Your task to perform on an android device: delete location history Image 0: 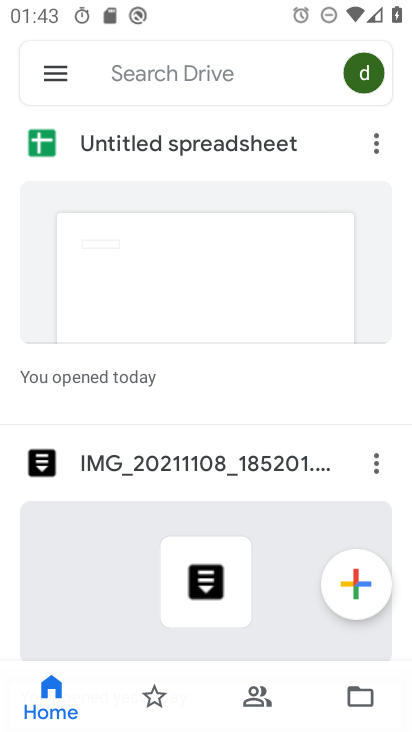
Step 0: press home button
Your task to perform on an android device: delete location history Image 1: 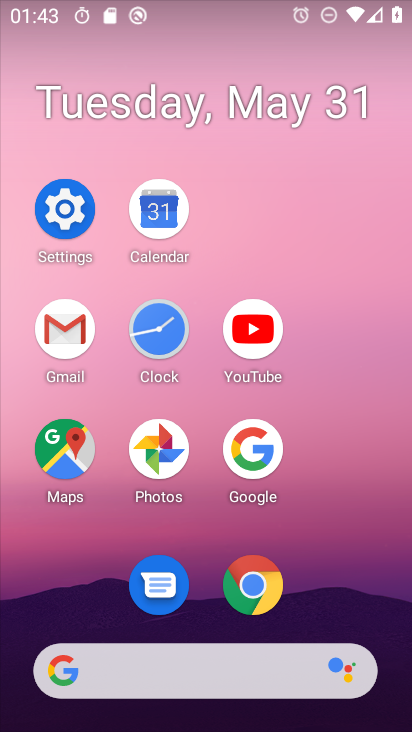
Step 1: click (90, 207)
Your task to perform on an android device: delete location history Image 2: 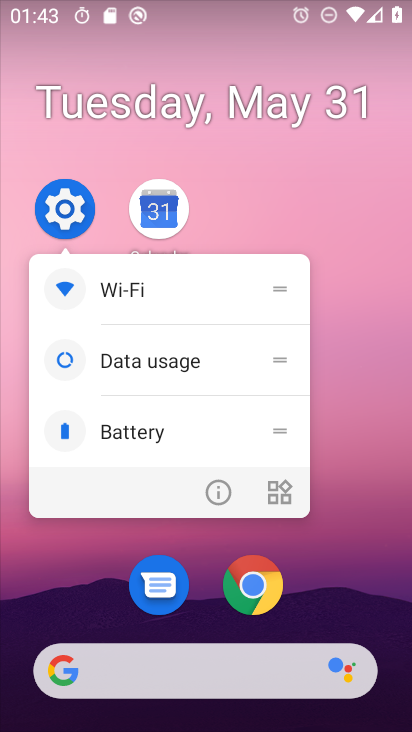
Step 2: click (70, 211)
Your task to perform on an android device: delete location history Image 3: 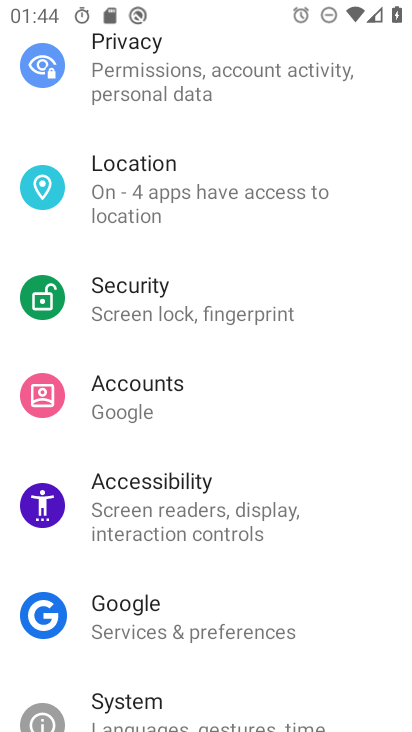
Step 3: click (256, 213)
Your task to perform on an android device: delete location history Image 4: 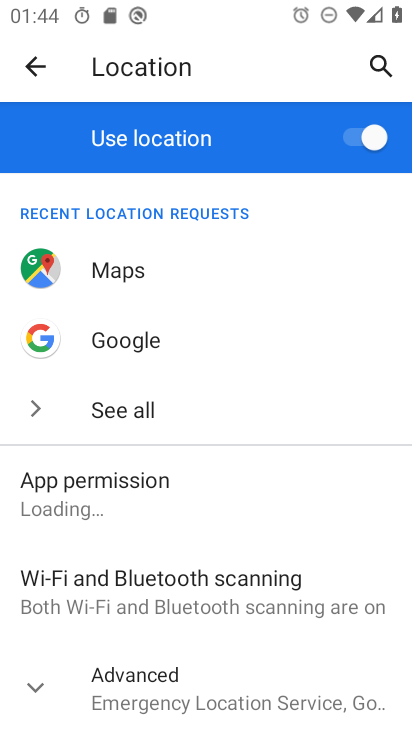
Step 4: click (235, 606)
Your task to perform on an android device: delete location history Image 5: 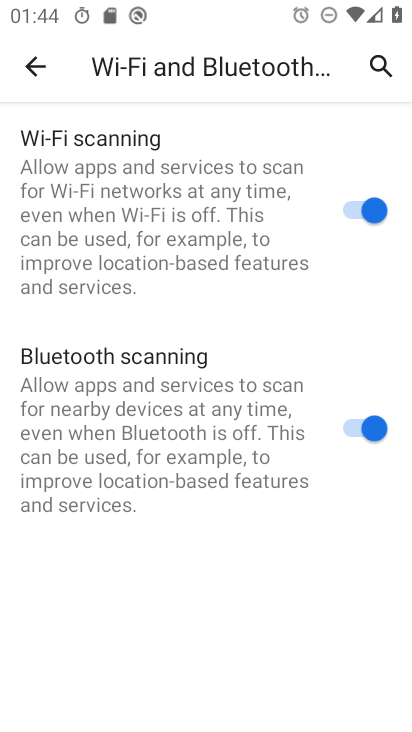
Step 5: task complete